Your task to perform on an android device: Search for vegetarian restaurants on Maps Image 0: 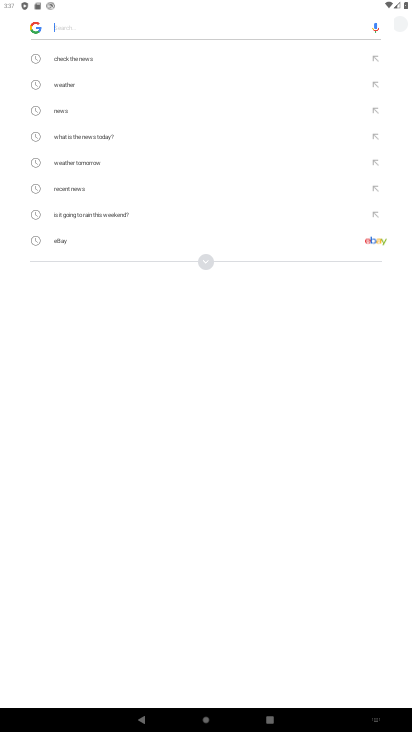
Step 0: press home button
Your task to perform on an android device: Search for vegetarian restaurants on Maps Image 1: 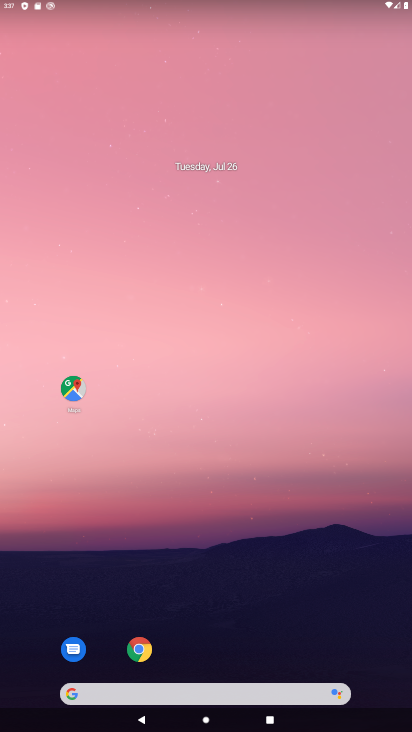
Step 1: drag from (223, 635) to (182, 171)
Your task to perform on an android device: Search for vegetarian restaurants on Maps Image 2: 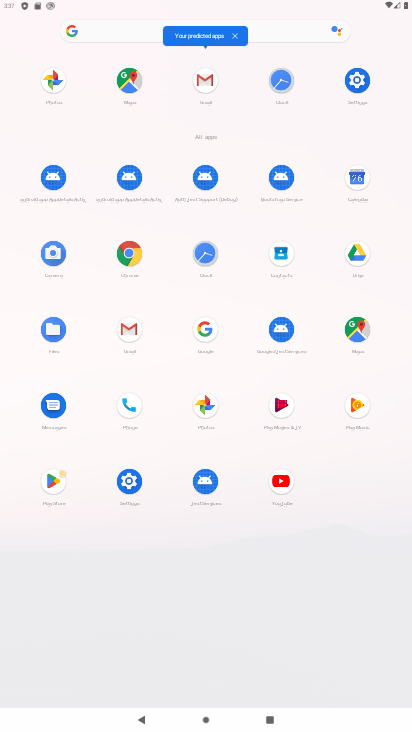
Step 2: click (125, 86)
Your task to perform on an android device: Search for vegetarian restaurants on Maps Image 3: 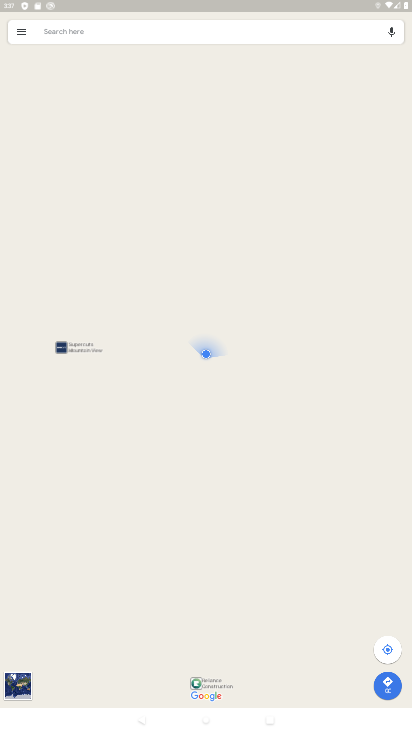
Step 3: click (159, 37)
Your task to perform on an android device: Search for vegetarian restaurants on Maps Image 4: 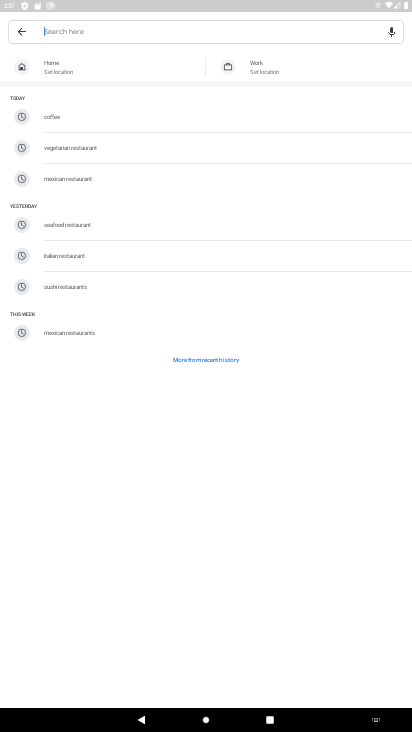
Step 4: click (159, 155)
Your task to perform on an android device: Search for vegetarian restaurants on Maps Image 5: 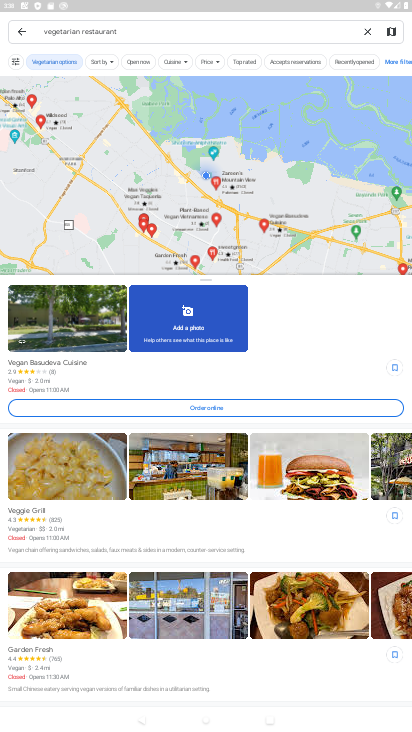
Step 5: task complete